Your task to perform on an android device: snooze an email in the gmail app Image 0: 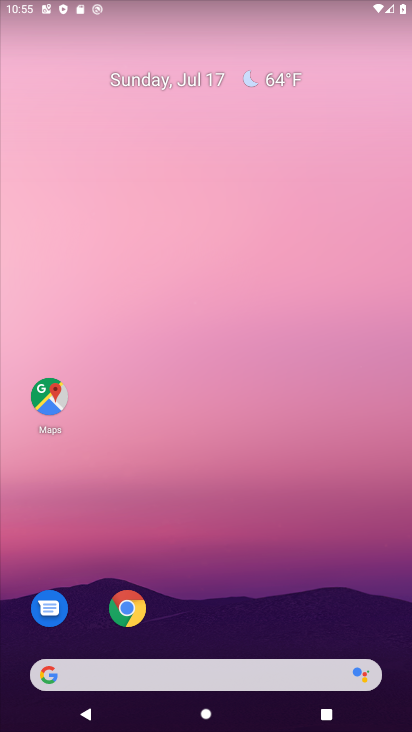
Step 0: drag from (374, 614) to (196, 39)
Your task to perform on an android device: snooze an email in the gmail app Image 1: 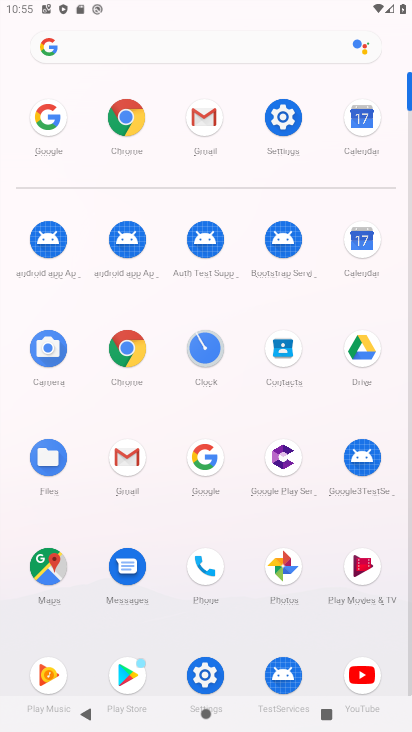
Step 1: click (125, 465)
Your task to perform on an android device: snooze an email in the gmail app Image 2: 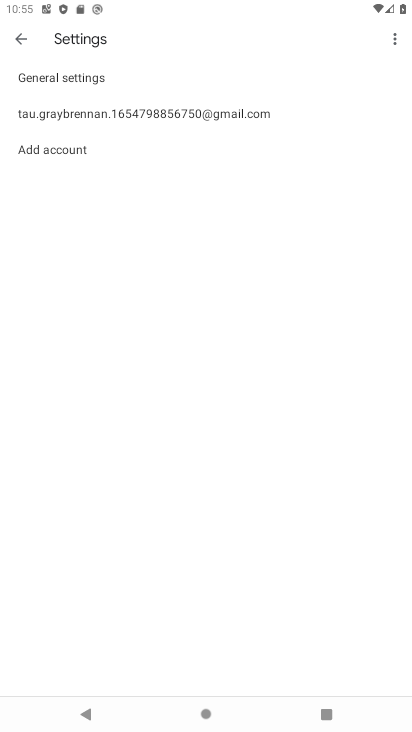
Step 2: task complete